Your task to perform on an android device: Check the news Image 0: 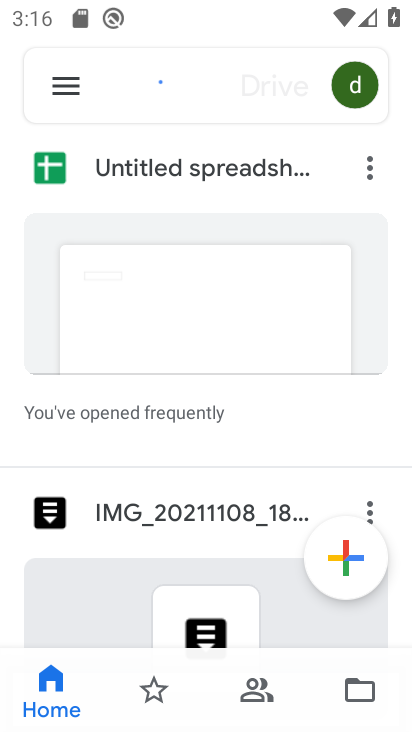
Step 0: press back button
Your task to perform on an android device: Check the news Image 1: 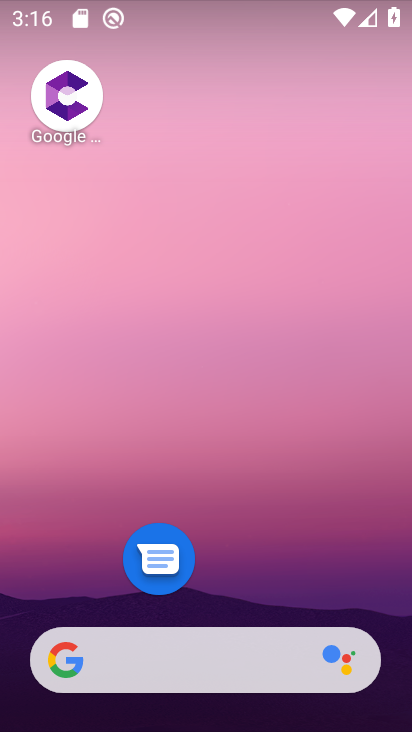
Step 1: click (215, 650)
Your task to perform on an android device: Check the news Image 2: 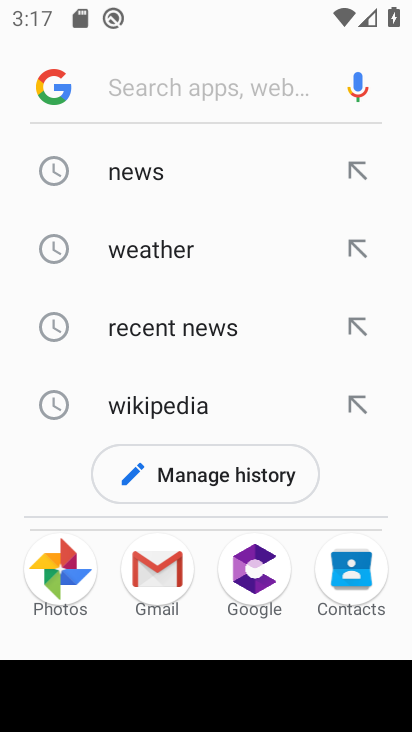
Step 2: click (131, 150)
Your task to perform on an android device: Check the news Image 3: 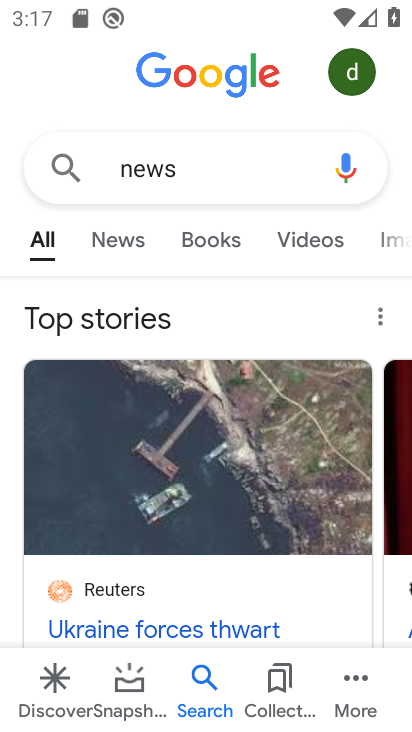
Step 3: task complete